Your task to perform on an android device: turn off location history Image 0: 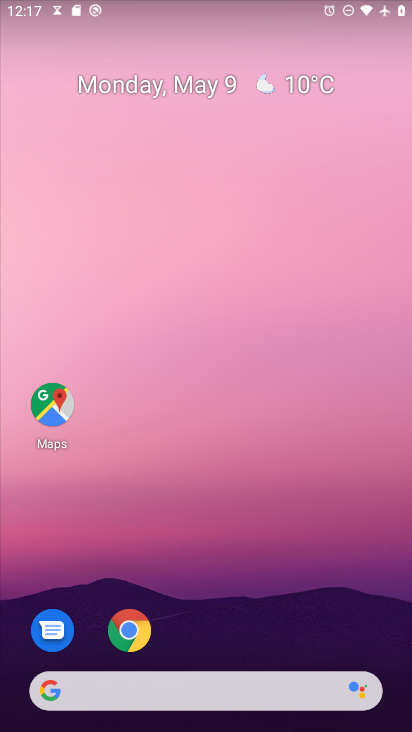
Step 0: drag from (239, 692) to (372, 146)
Your task to perform on an android device: turn off location history Image 1: 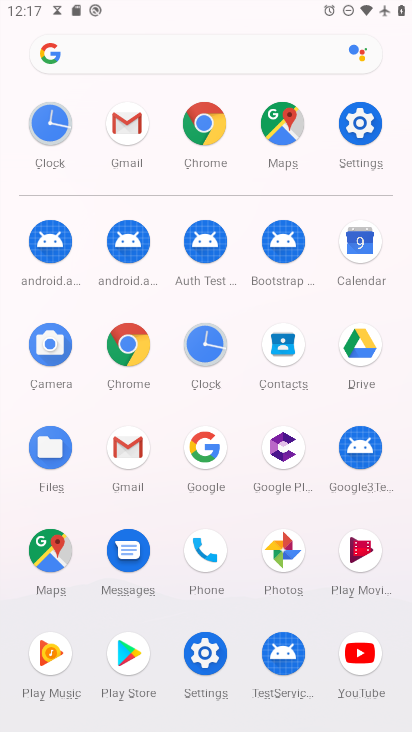
Step 1: click (279, 128)
Your task to perform on an android device: turn off location history Image 2: 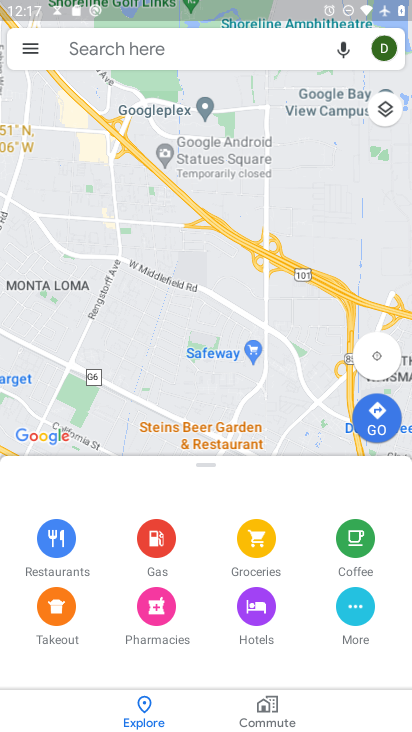
Step 2: click (31, 56)
Your task to perform on an android device: turn off location history Image 3: 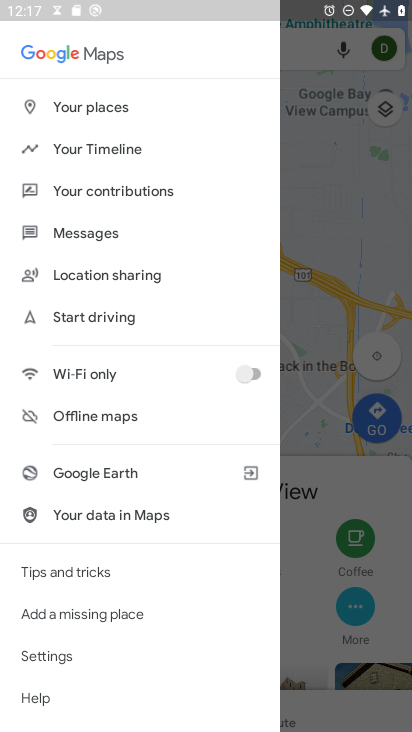
Step 3: click (94, 152)
Your task to perform on an android device: turn off location history Image 4: 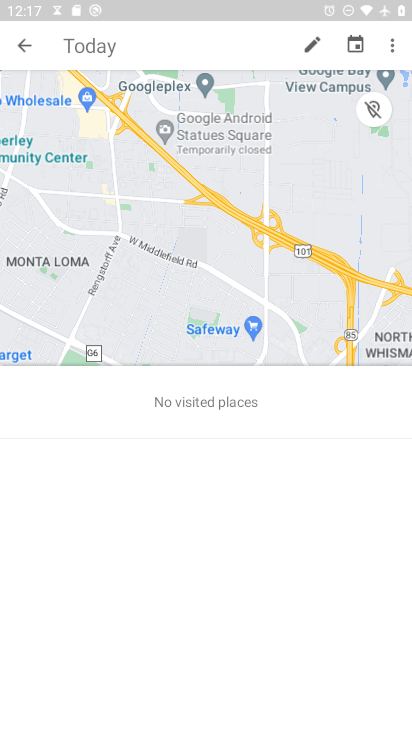
Step 4: click (391, 48)
Your task to perform on an android device: turn off location history Image 5: 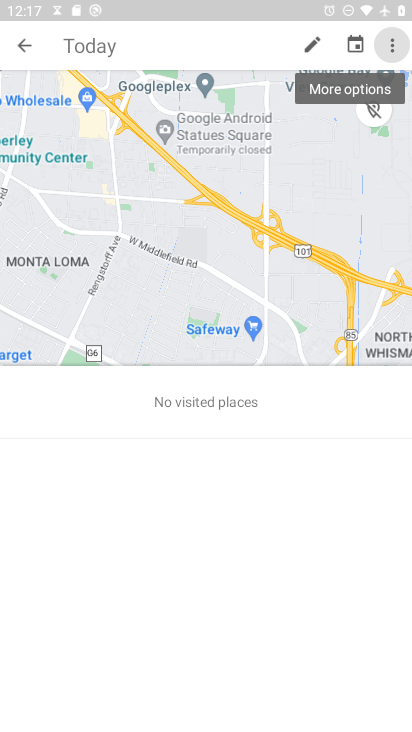
Step 5: click (391, 48)
Your task to perform on an android device: turn off location history Image 6: 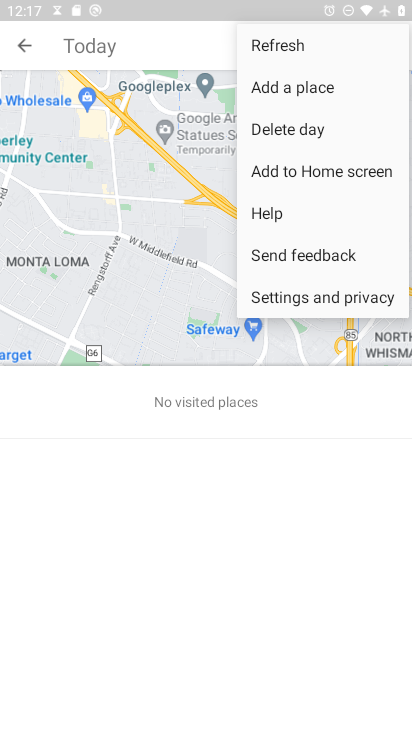
Step 6: click (309, 297)
Your task to perform on an android device: turn off location history Image 7: 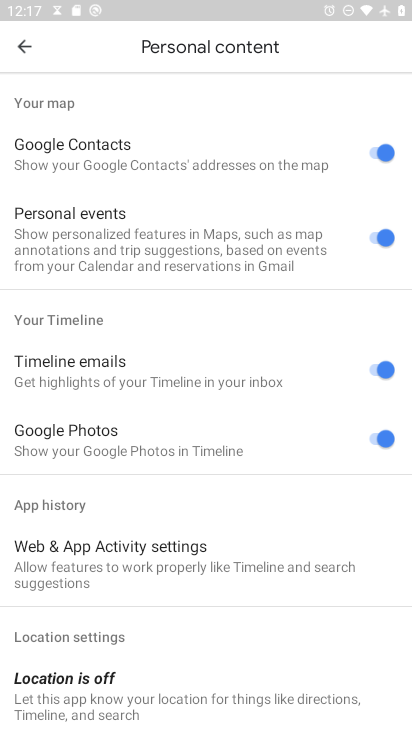
Step 7: drag from (199, 633) to (342, 201)
Your task to perform on an android device: turn off location history Image 8: 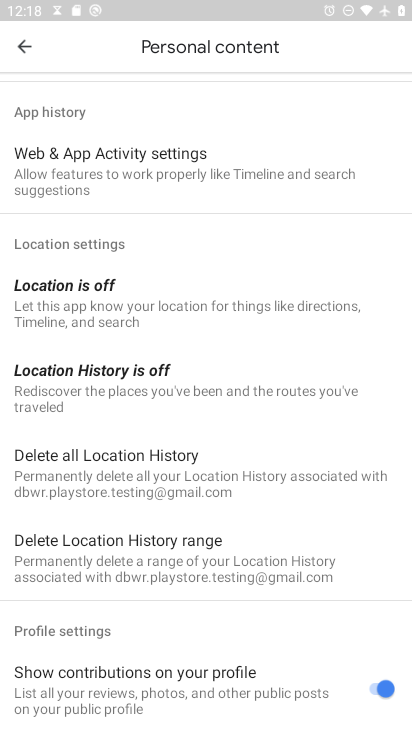
Step 8: click (157, 381)
Your task to perform on an android device: turn off location history Image 9: 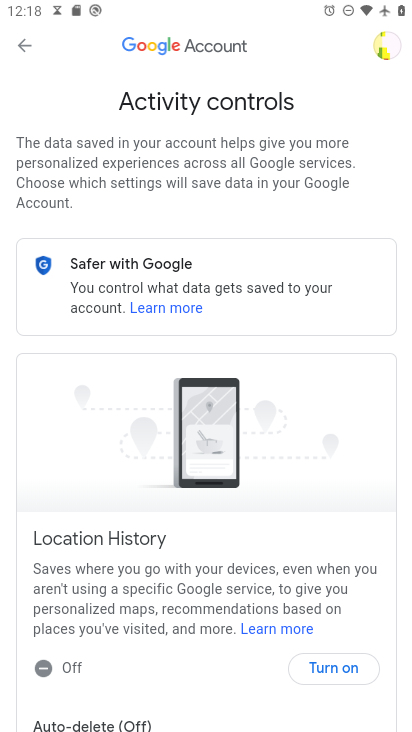
Step 9: task complete